Your task to perform on an android device: check battery use Image 0: 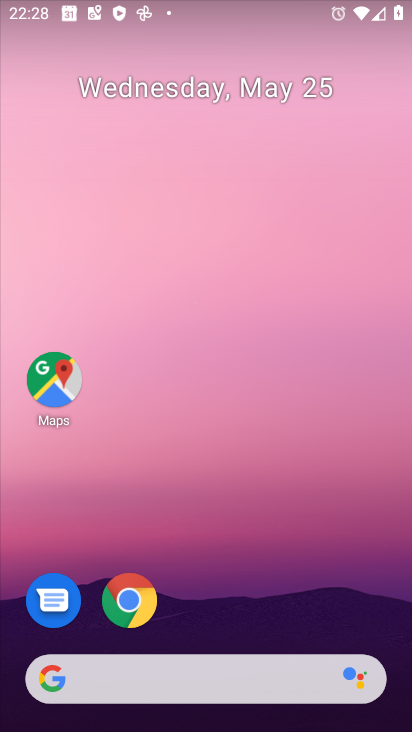
Step 0: drag from (345, 614) to (350, 185)
Your task to perform on an android device: check battery use Image 1: 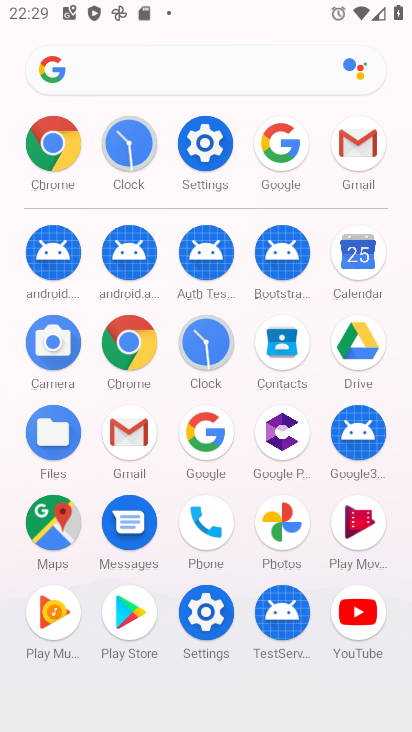
Step 1: click (209, 615)
Your task to perform on an android device: check battery use Image 2: 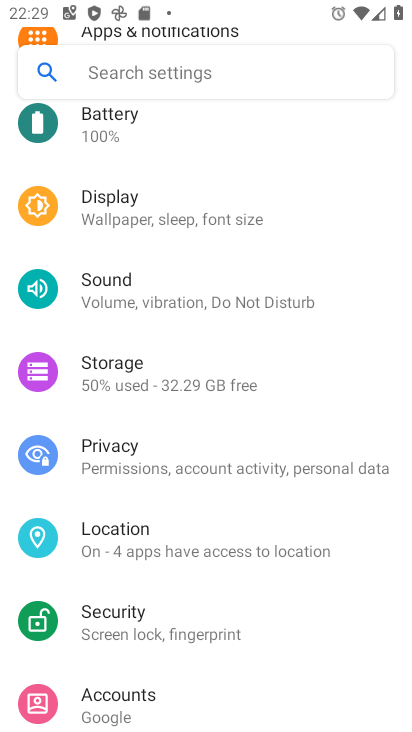
Step 2: click (170, 134)
Your task to perform on an android device: check battery use Image 3: 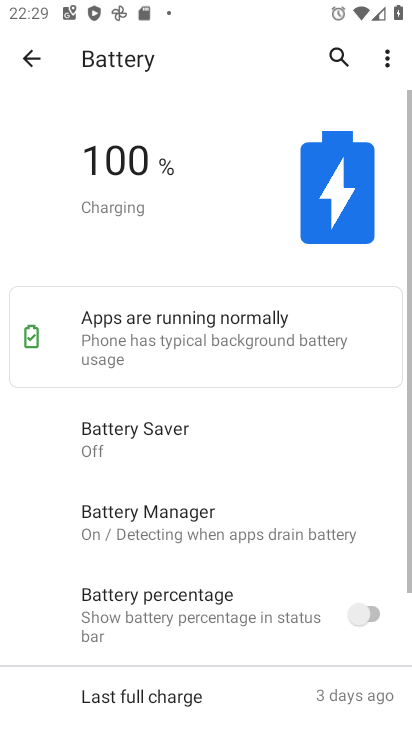
Step 3: task complete